Your task to perform on an android device: Go to CNN.com Image 0: 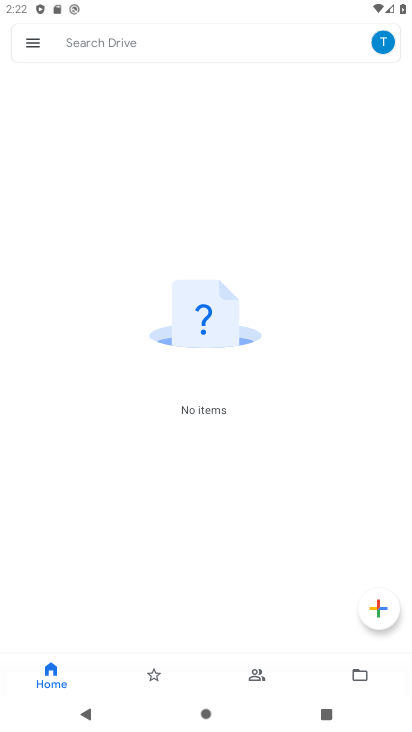
Step 0: press home button
Your task to perform on an android device: Go to CNN.com Image 1: 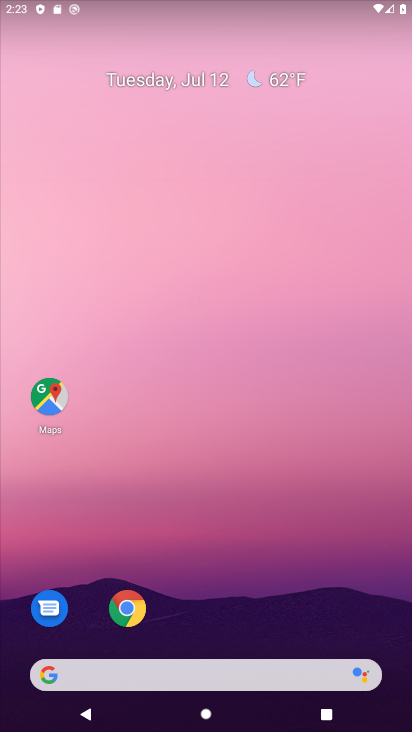
Step 1: click (117, 604)
Your task to perform on an android device: Go to CNN.com Image 2: 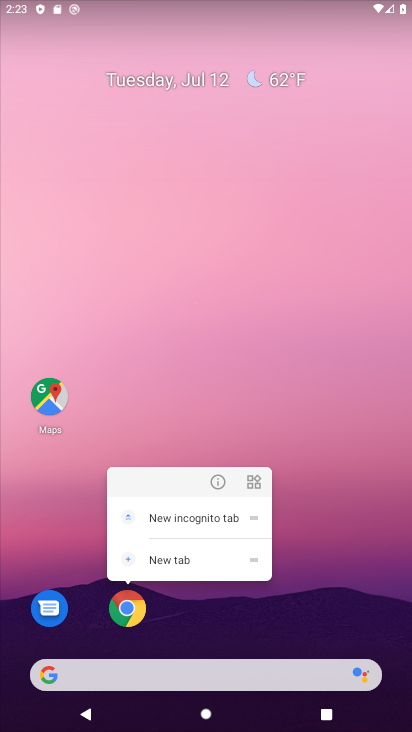
Step 2: click (126, 606)
Your task to perform on an android device: Go to CNN.com Image 3: 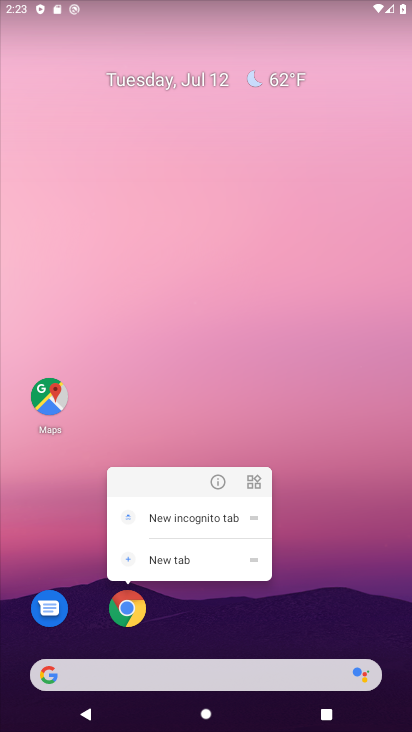
Step 3: click (126, 606)
Your task to perform on an android device: Go to CNN.com Image 4: 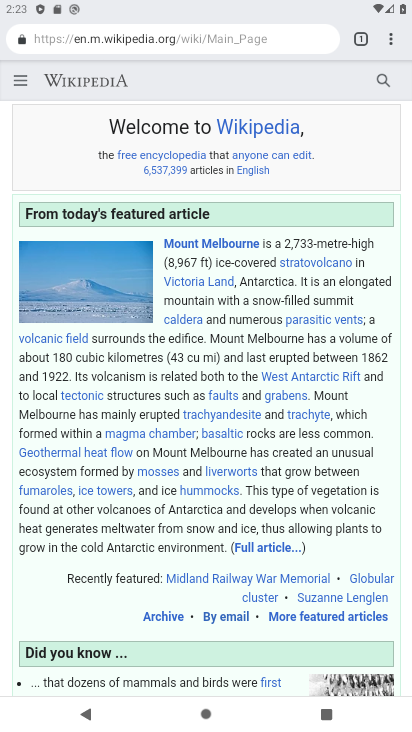
Step 4: drag from (396, 33) to (283, 79)
Your task to perform on an android device: Go to CNN.com Image 5: 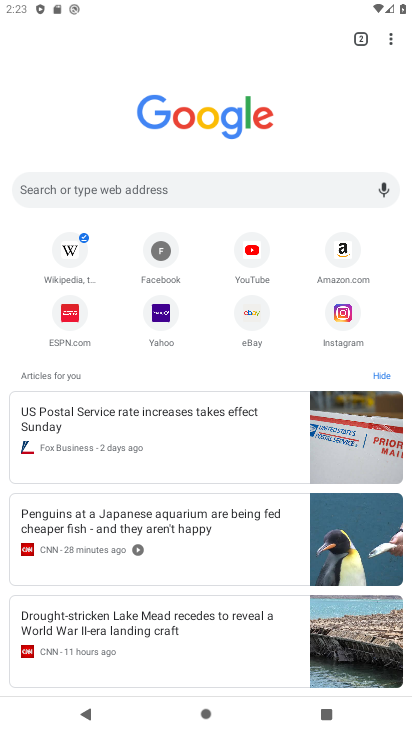
Step 5: click (167, 178)
Your task to perform on an android device: Go to CNN.com Image 6: 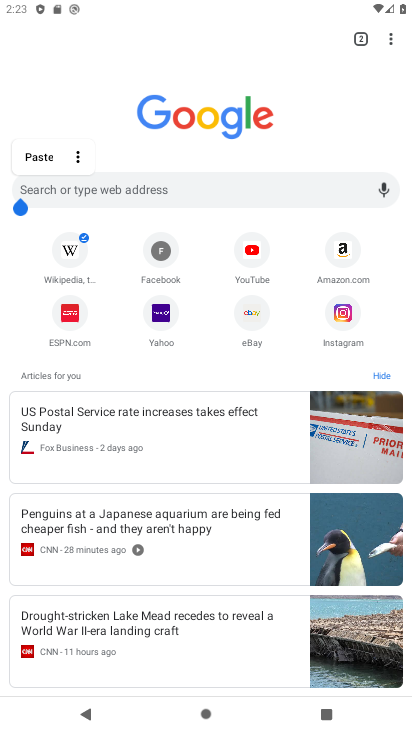
Step 6: click (212, 186)
Your task to perform on an android device: Go to CNN.com Image 7: 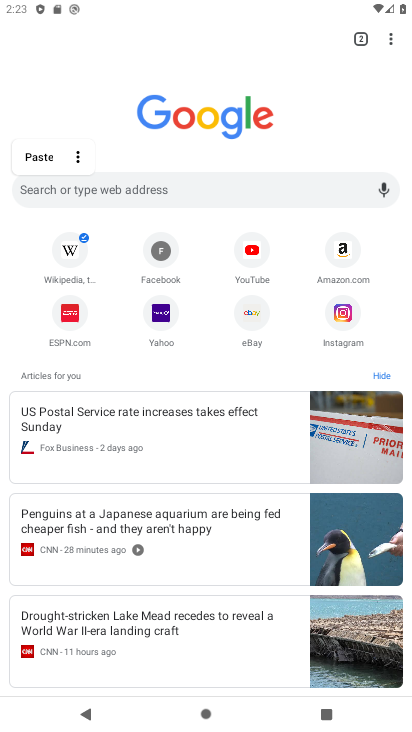
Step 7: click (72, 188)
Your task to perform on an android device: Go to CNN.com Image 8: 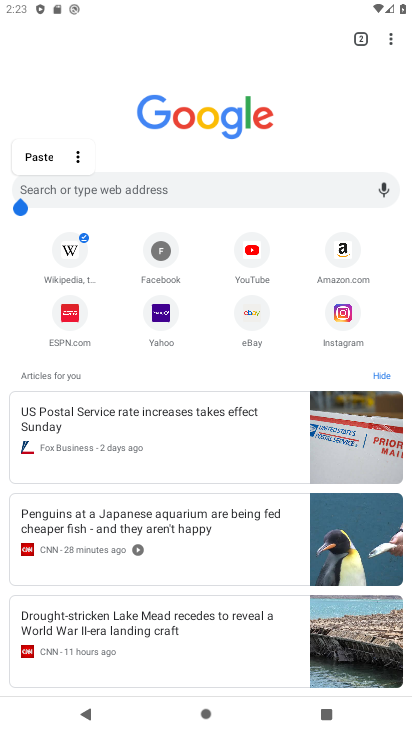
Step 8: click (212, 190)
Your task to perform on an android device: Go to CNN.com Image 9: 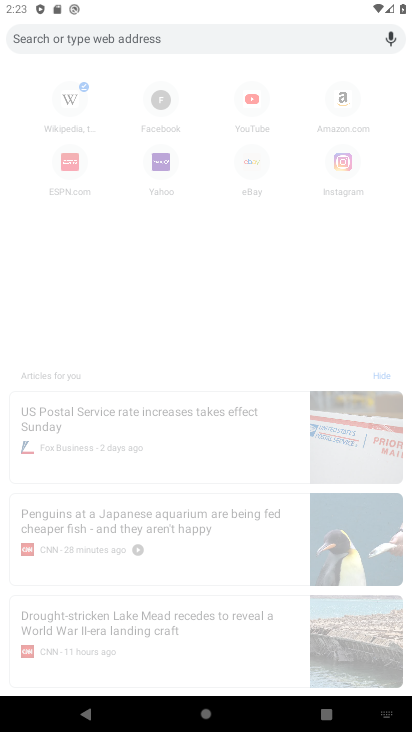
Step 9: type "cnn.com"
Your task to perform on an android device: Go to CNN.com Image 10: 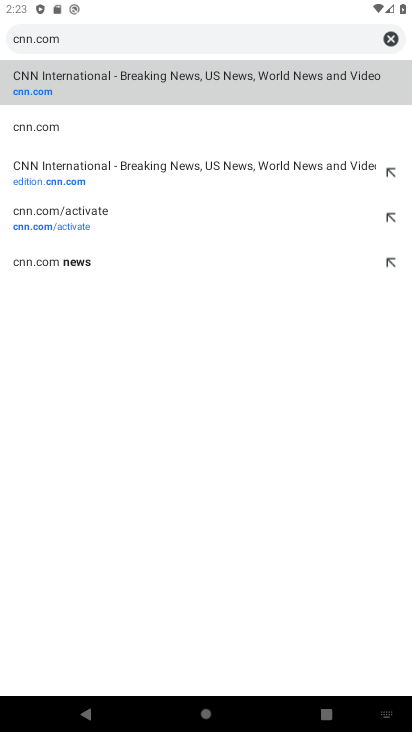
Step 10: click (163, 64)
Your task to perform on an android device: Go to CNN.com Image 11: 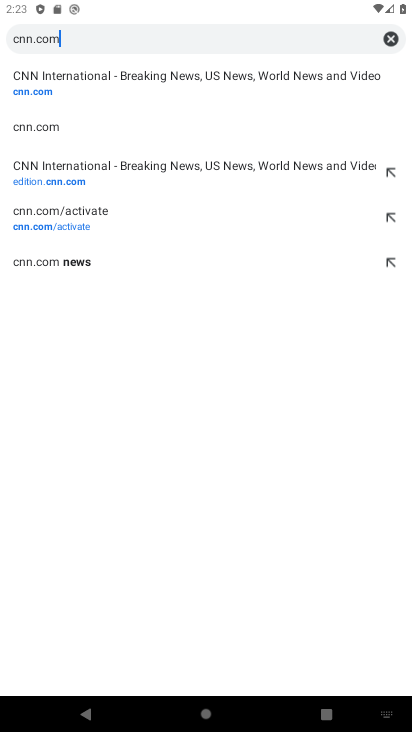
Step 11: click (163, 87)
Your task to perform on an android device: Go to CNN.com Image 12: 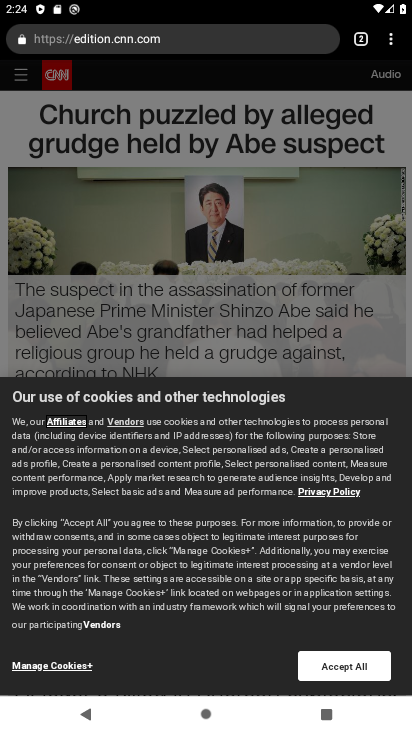
Step 12: click (339, 660)
Your task to perform on an android device: Go to CNN.com Image 13: 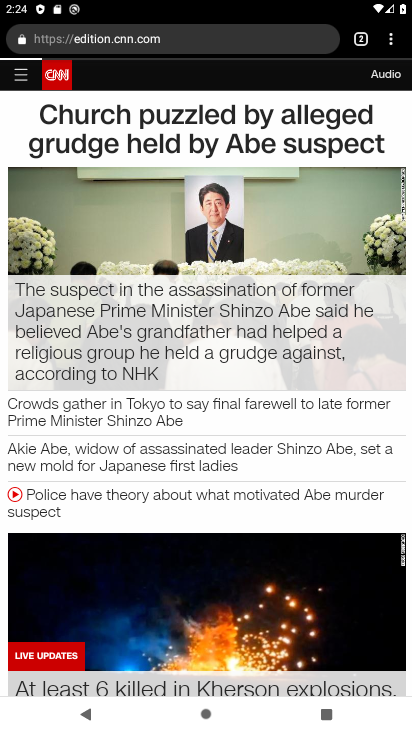
Step 13: task complete